Your task to perform on an android device: Show me productivity apps on the Play Store Image 0: 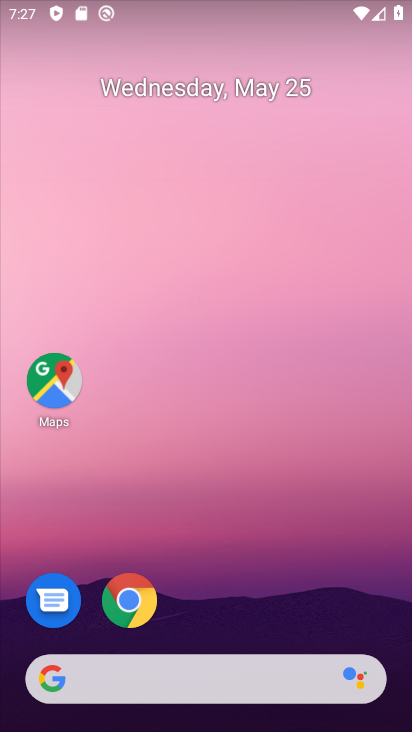
Step 0: drag from (329, 586) to (289, 170)
Your task to perform on an android device: Show me productivity apps on the Play Store Image 1: 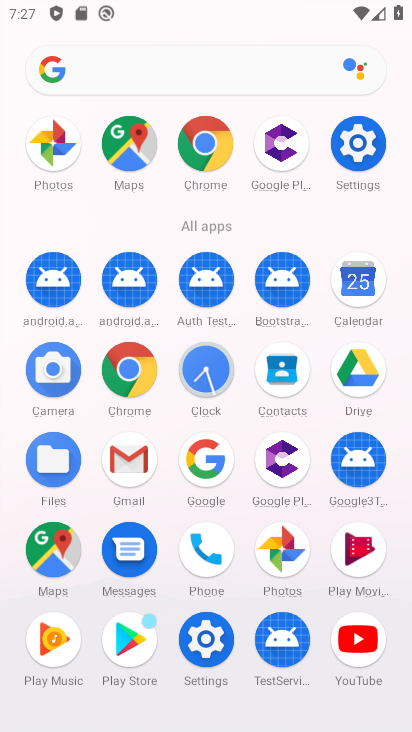
Step 1: click (122, 648)
Your task to perform on an android device: Show me productivity apps on the Play Store Image 2: 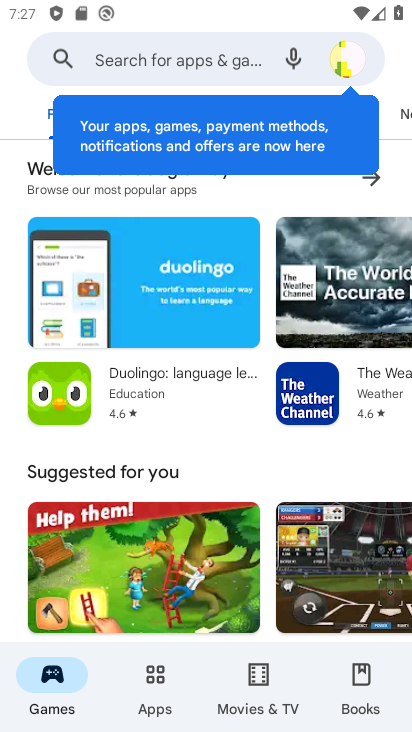
Step 2: click (153, 696)
Your task to perform on an android device: Show me productivity apps on the Play Store Image 3: 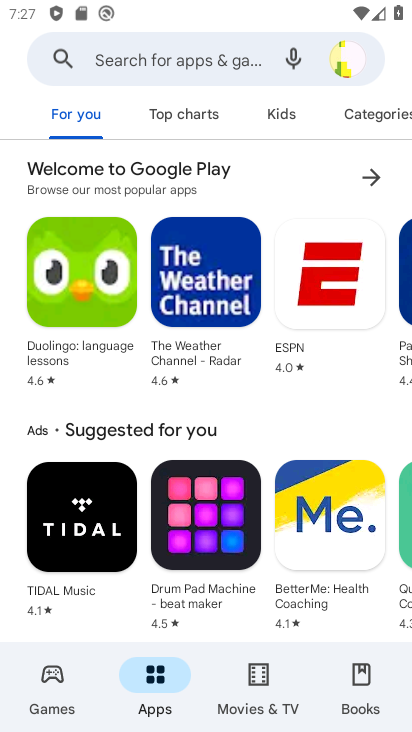
Step 3: drag from (323, 126) to (31, 123)
Your task to perform on an android device: Show me productivity apps on the Play Store Image 4: 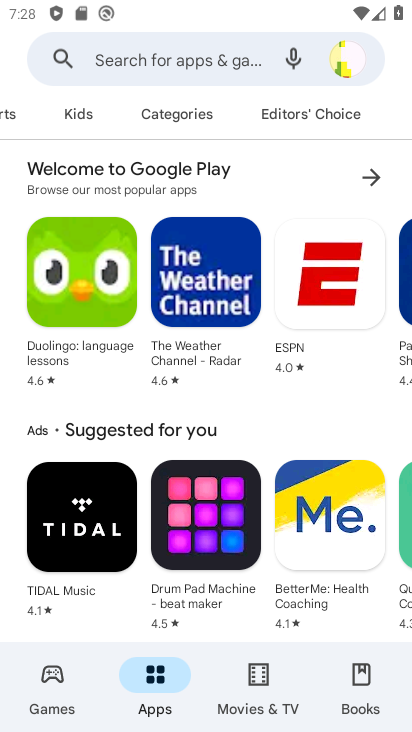
Step 4: click (165, 117)
Your task to perform on an android device: Show me productivity apps on the Play Store Image 5: 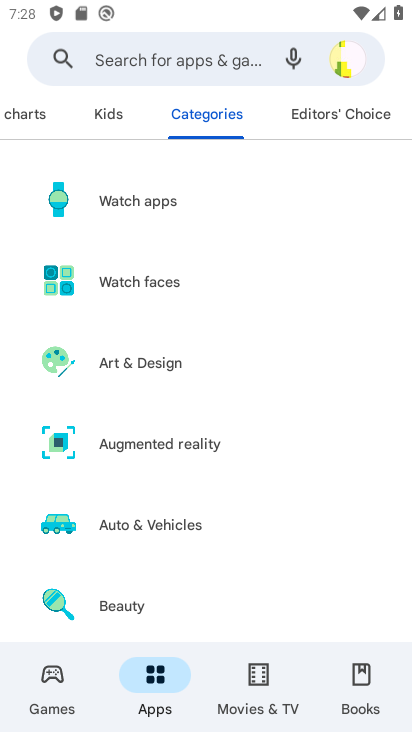
Step 5: drag from (263, 583) to (249, 195)
Your task to perform on an android device: Show me productivity apps on the Play Store Image 6: 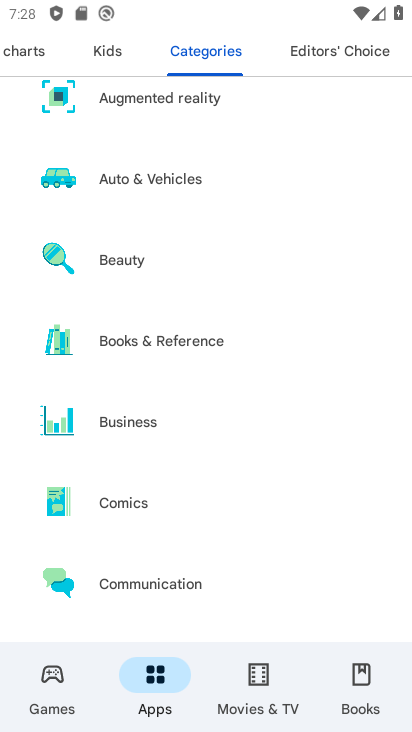
Step 6: drag from (268, 600) to (256, 204)
Your task to perform on an android device: Show me productivity apps on the Play Store Image 7: 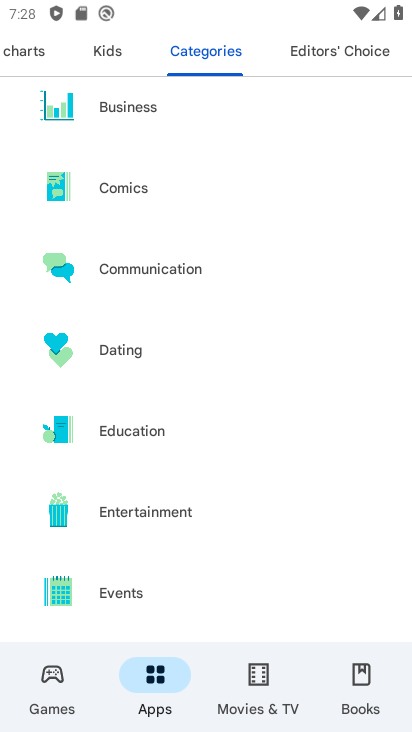
Step 7: drag from (246, 568) to (271, 197)
Your task to perform on an android device: Show me productivity apps on the Play Store Image 8: 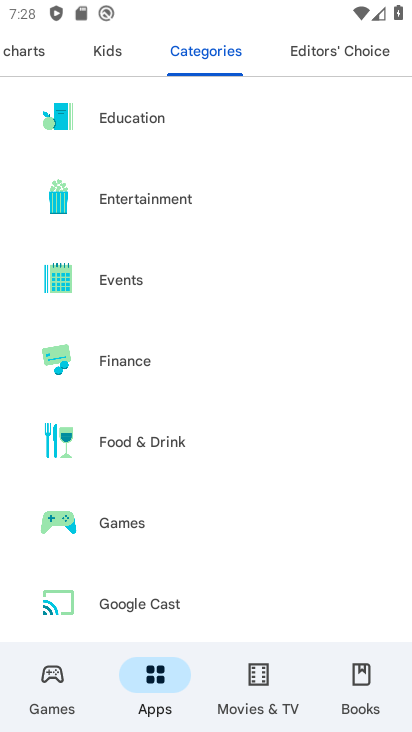
Step 8: drag from (267, 579) to (294, 208)
Your task to perform on an android device: Show me productivity apps on the Play Store Image 9: 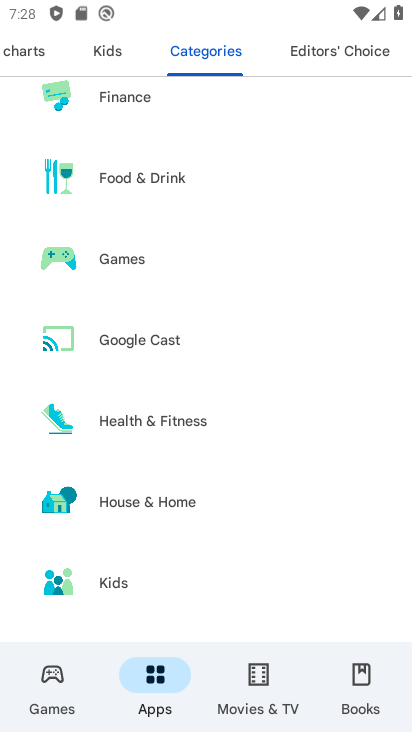
Step 9: drag from (265, 570) to (256, 186)
Your task to perform on an android device: Show me productivity apps on the Play Store Image 10: 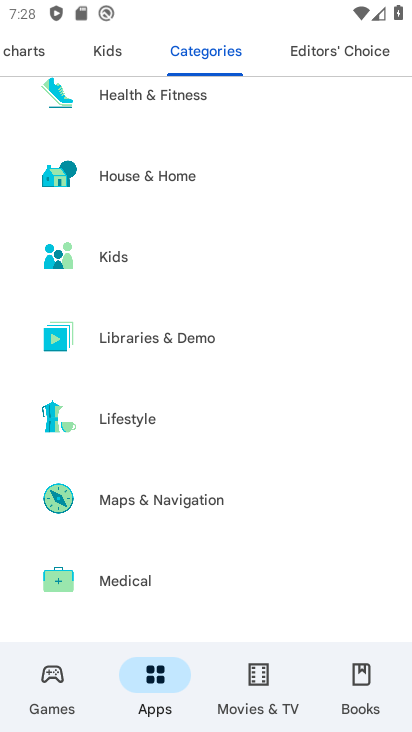
Step 10: drag from (157, 575) to (246, 223)
Your task to perform on an android device: Show me productivity apps on the Play Store Image 11: 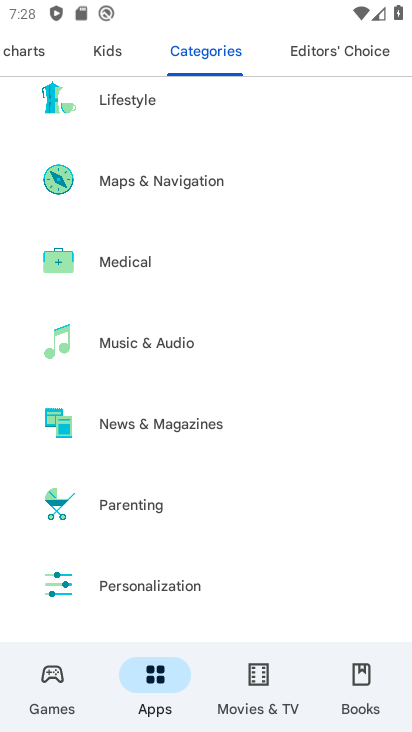
Step 11: drag from (219, 574) to (295, 291)
Your task to perform on an android device: Show me productivity apps on the Play Store Image 12: 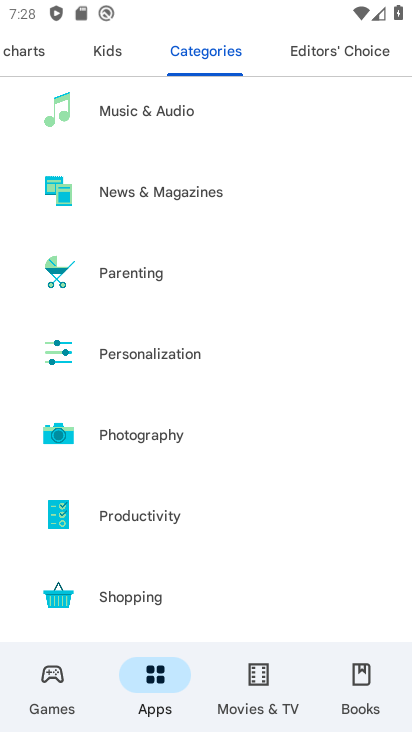
Step 12: click (168, 522)
Your task to perform on an android device: Show me productivity apps on the Play Store Image 13: 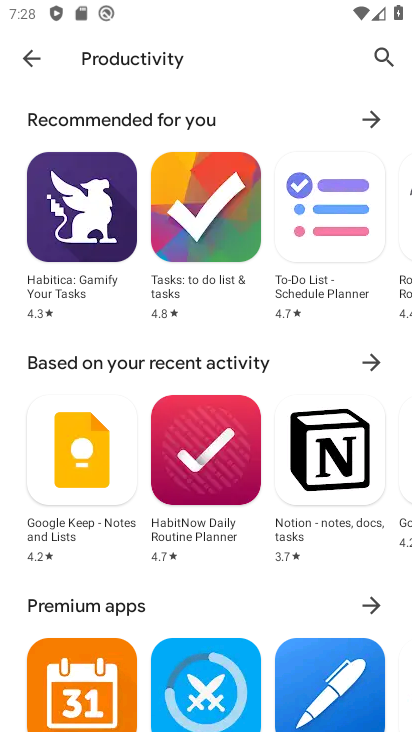
Step 13: task complete